Your task to perform on an android device: check android version Image 0: 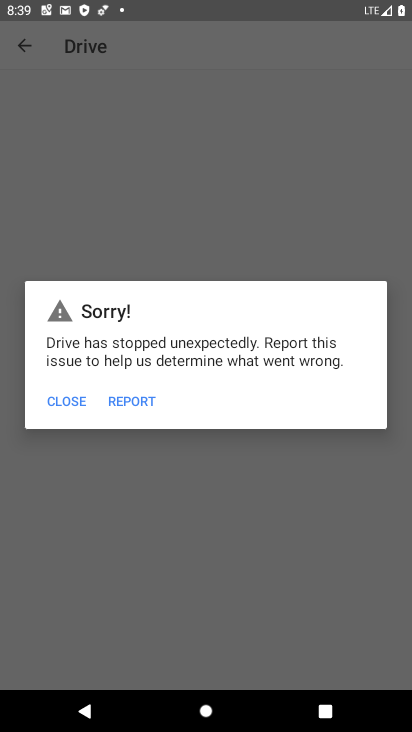
Step 0: press home button
Your task to perform on an android device: check android version Image 1: 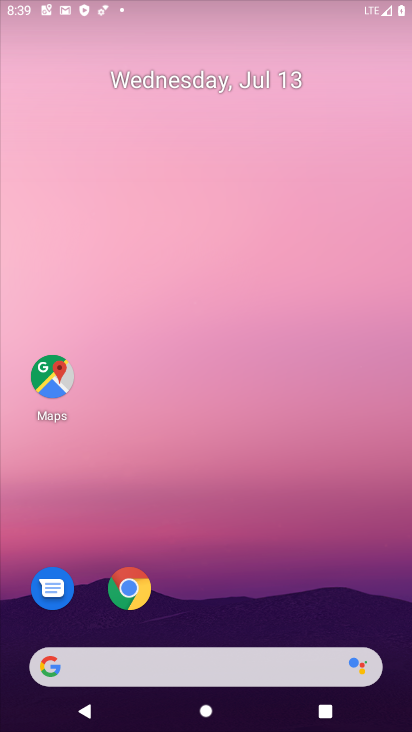
Step 1: drag from (152, 667) to (246, 181)
Your task to perform on an android device: check android version Image 2: 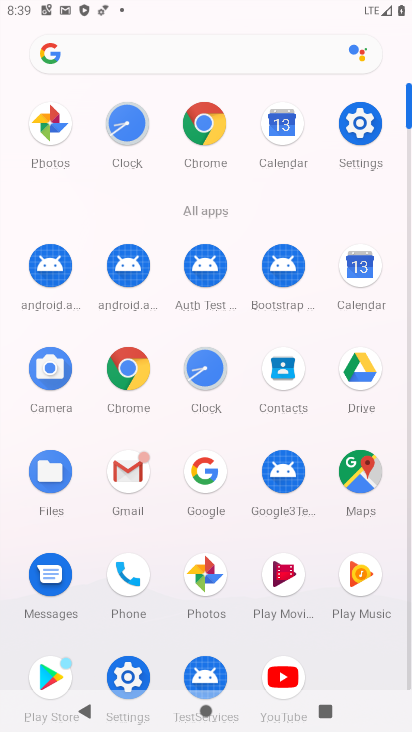
Step 2: click (348, 119)
Your task to perform on an android device: check android version Image 3: 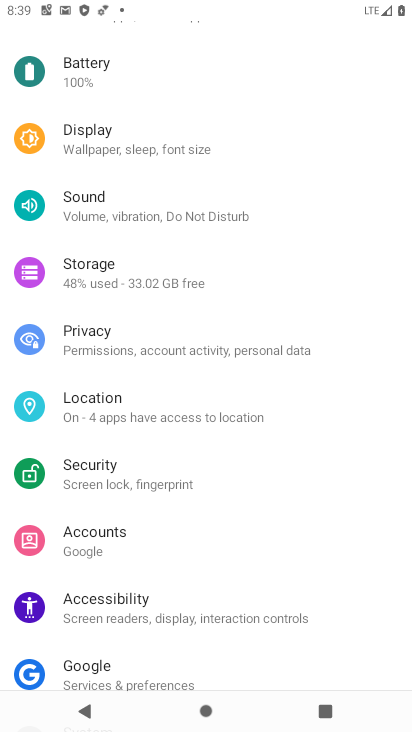
Step 3: drag from (174, 697) to (303, 136)
Your task to perform on an android device: check android version Image 4: 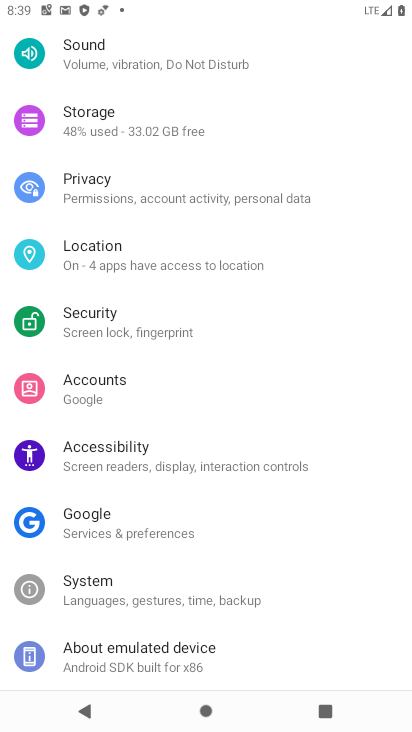
Step 4: click (174, 665)
Your task to perform on an android device: check android version Image 5: 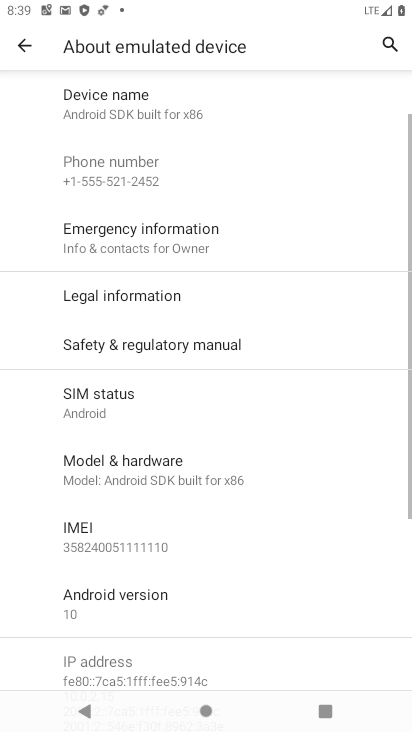
Step 5: drag from (150, 595) to (244, 84)
Your task to perform on an android device: check android version Image 6: 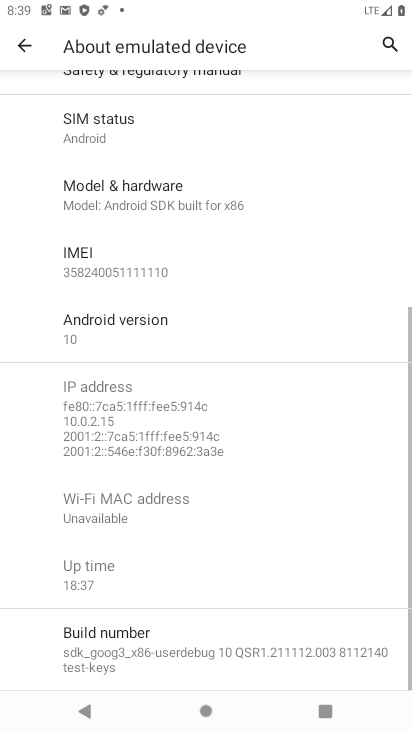
Step 6: click (164, 315)
Your task to perform on an android device: check android version Image 7: 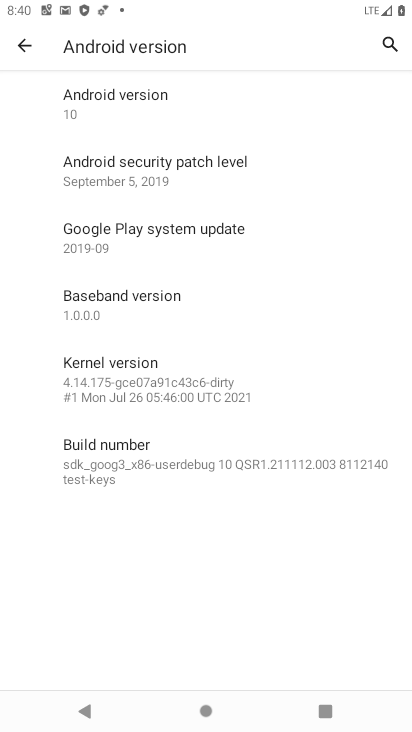
Step 7: task complete